Your task to perform on an android device: check battery use Image 0: 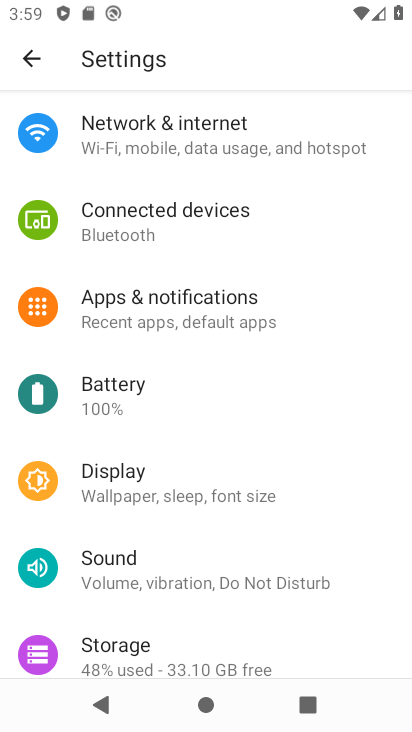
Step 0: click (163, 401)
Your task to perform on an android device: check battery use Image 1: 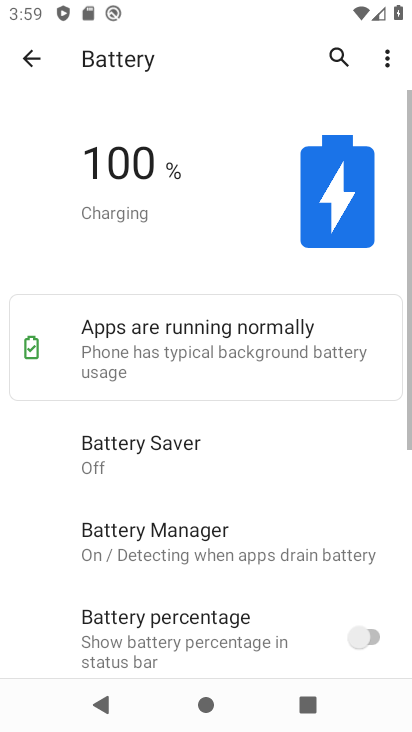
Step 1: drag from (191, 553) to (190, 178)
Your task to perform on an android device: check battery use Image 2: 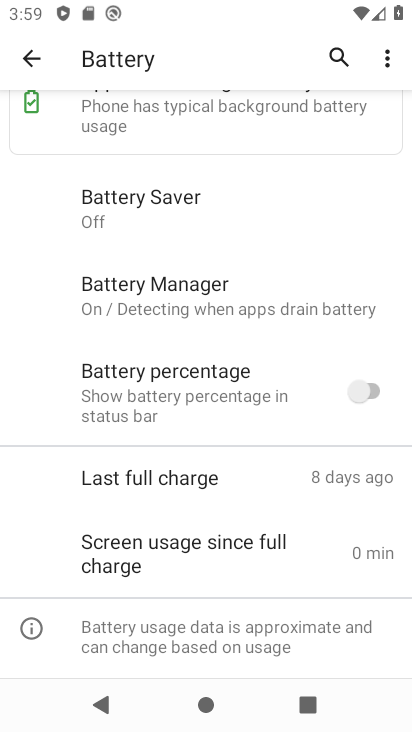
Step 2: click (395, 56)
Your task to perform on an android device: check battery use Image 3: 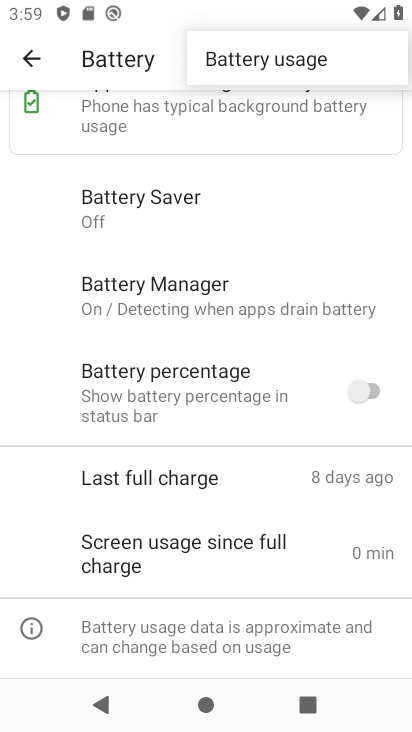
Step 3: click (310, 56)
Your task to perform on an android device: check battery use Image 4: 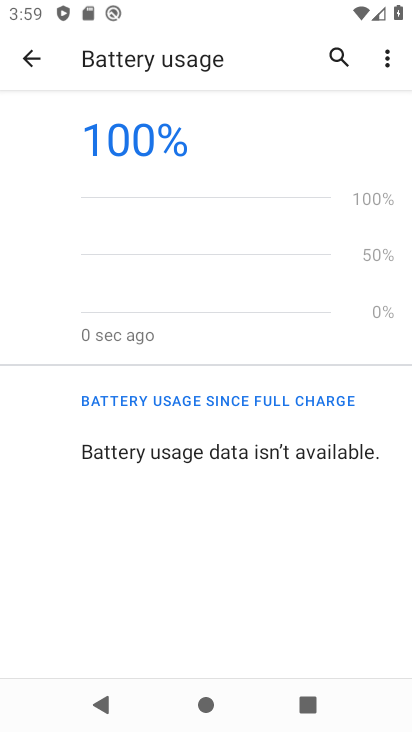
Step 4: task complete